Your task to perform on an android device: Open Google Chrome Image 0: 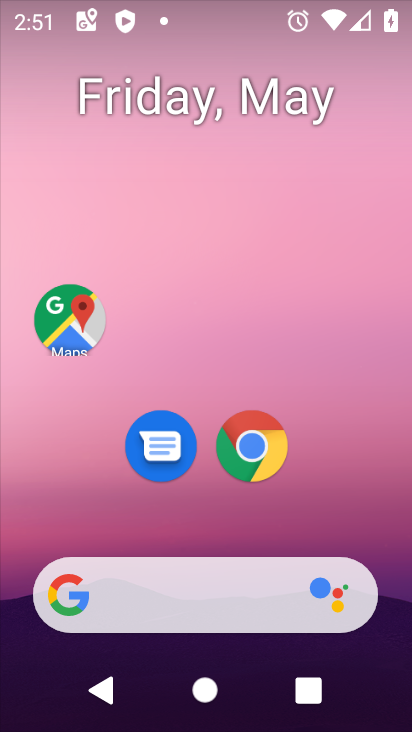
Step 0: click (260, 449)
Your task to perform on an android device: Open Google Chrome Image 1: 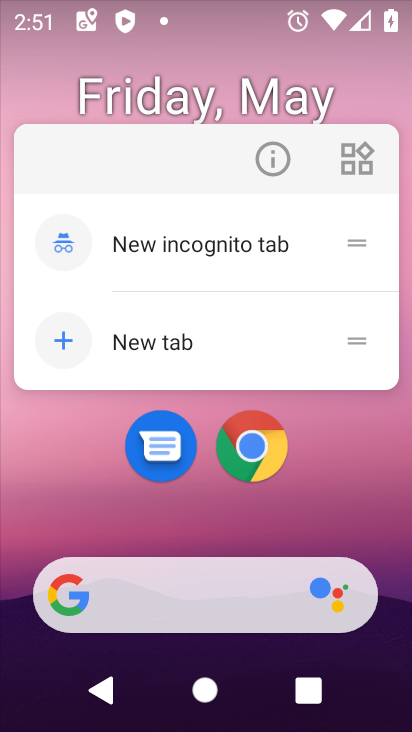
Step 1: click (260, 449)
Your task to perform on an android device: Open Google Chrome Image 2: 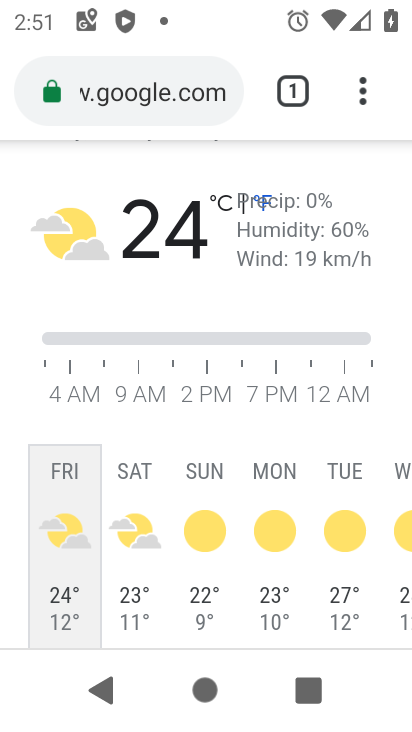
Step 2: task complete